Your task to perform on an android device: Open Reddit.com Image 0: 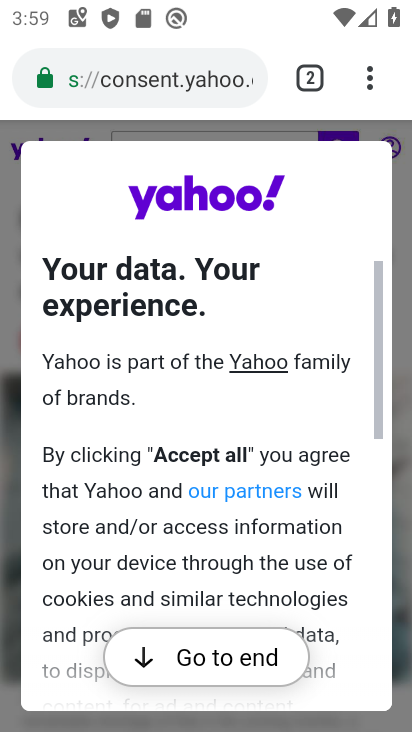
Step 0: press back button
Your task to perform on an android device: Open Reddit.com Image 1: 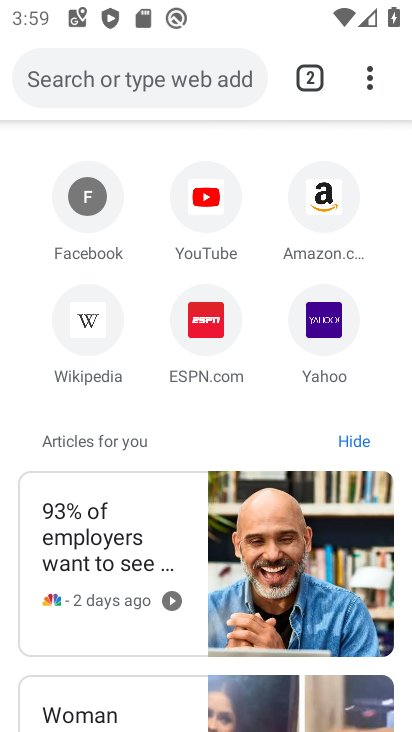
Step 1: click (135, 69)
Your task to perform on an android device: Open Reddit.com Image 2: 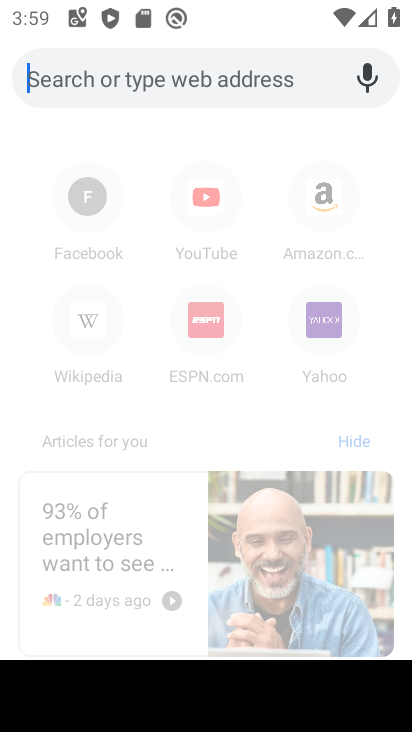
Step 2: type "reddit.com"
Your task to perform on an android device: Open Reddit.com Image 3: 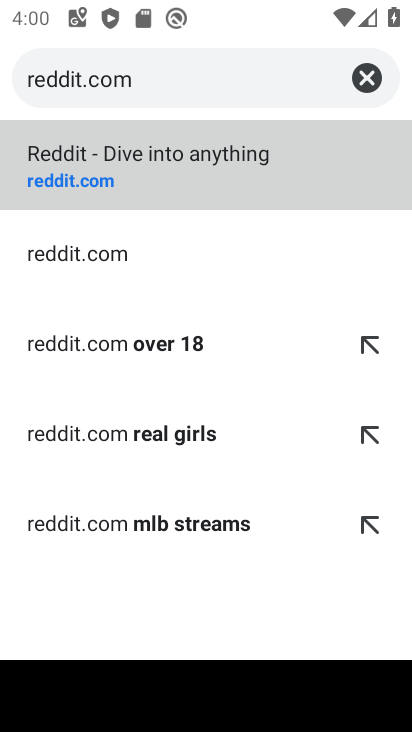
Step 3: click (151, 166)
Your task to perform on an android device: Open Reddit.com Image 4: 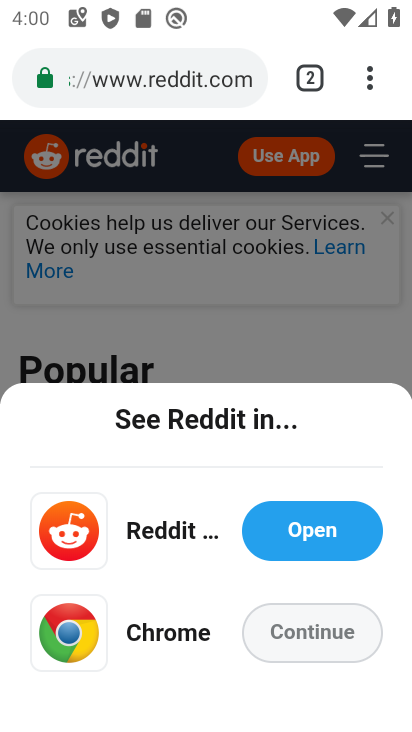
Step 4: task complete